Your task to perform on an android device: toggle priority inbox in the gmail app Image 0: 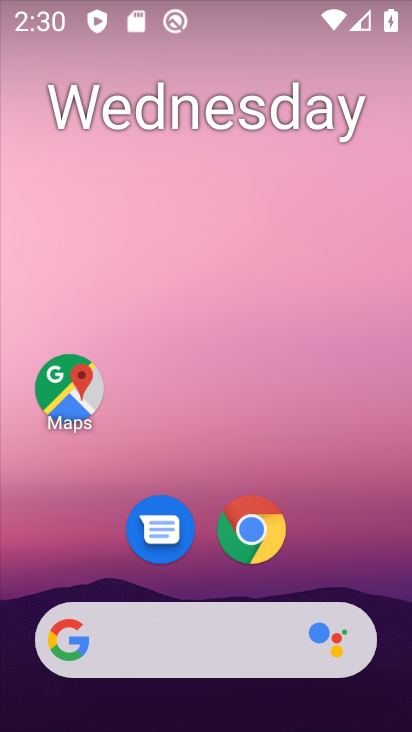
Step 0: drag from (222, 538) to (155, 62)
Your task to perform on an android device: toggle priority inbox in the gmail app Image 1: 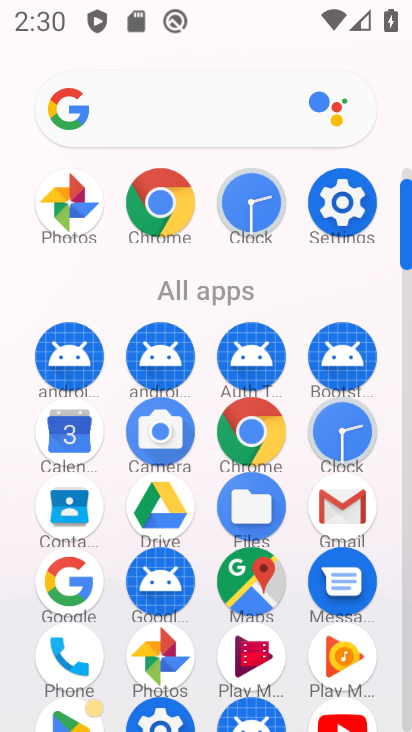
Step 1: click (358, 498)
Your task to perform on an android device: toggle priority inbox in the gmail app Image 2: 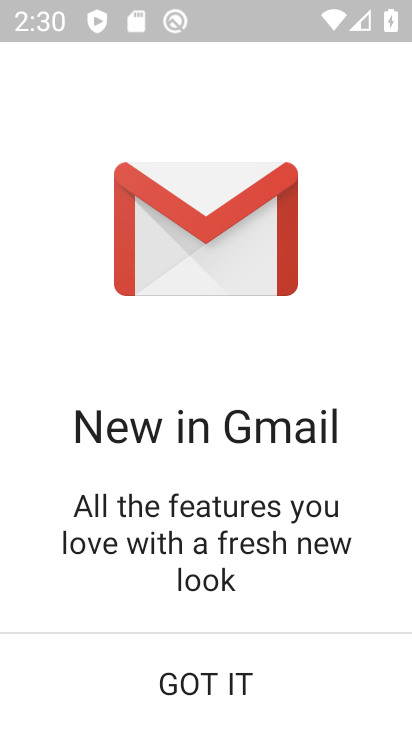
Step 2: click (189, 700)
Your task to perform on an android device: toggle priority inbox in the gmail app Image 3: 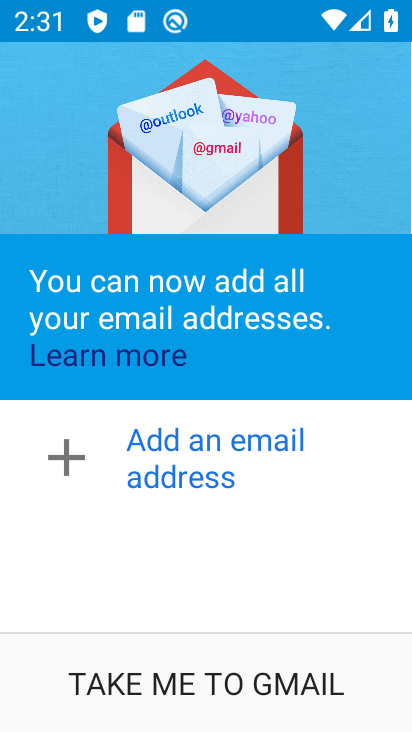
Step 3: click (224, 685)
Your task to perform on an android device: toggle priority inbox in the gmail app Image 4: 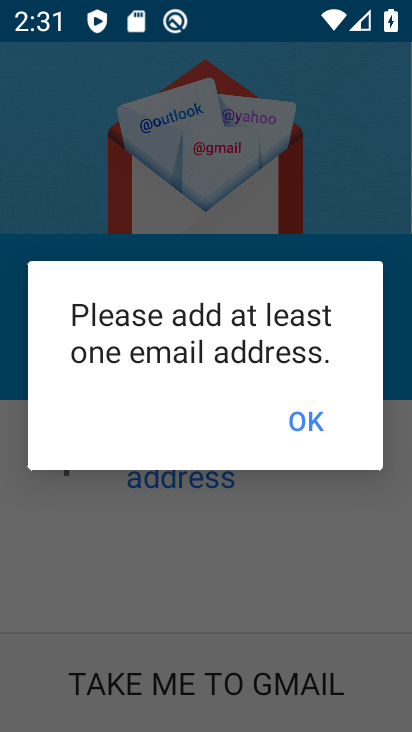
Step 4: click (310, 416)
Your task to perform on an android device: toggle priority inbox in the gmail app Image 5: 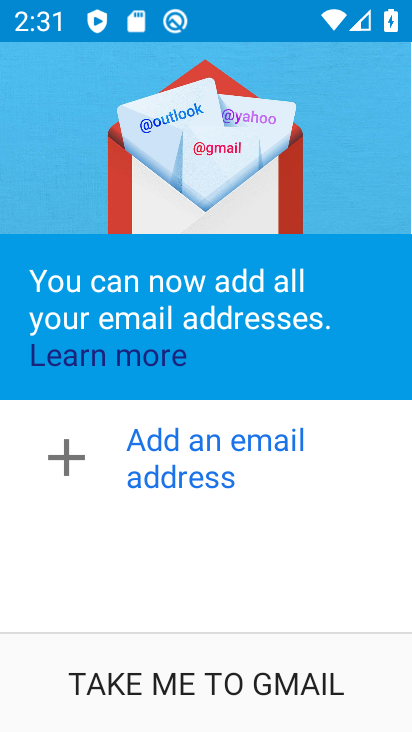
Step 5: click (167, 661)
Your task to perform on an android device: toggle priority inbox in the gmail app Image 6: 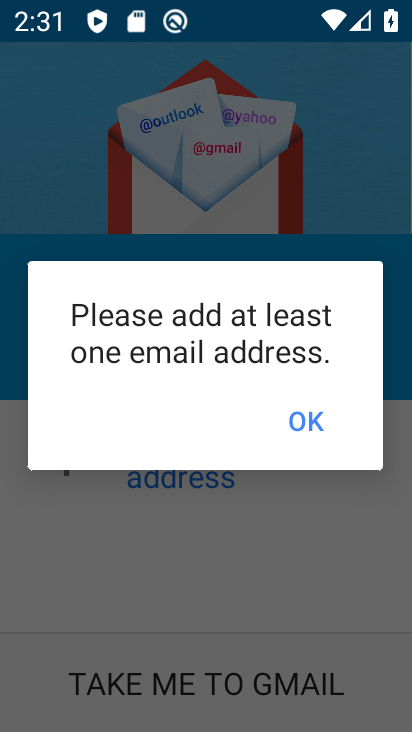
Step 6: click (297, 407)
Your task to perform on an android device: toggle priority inbox in the gmail app Image 7: 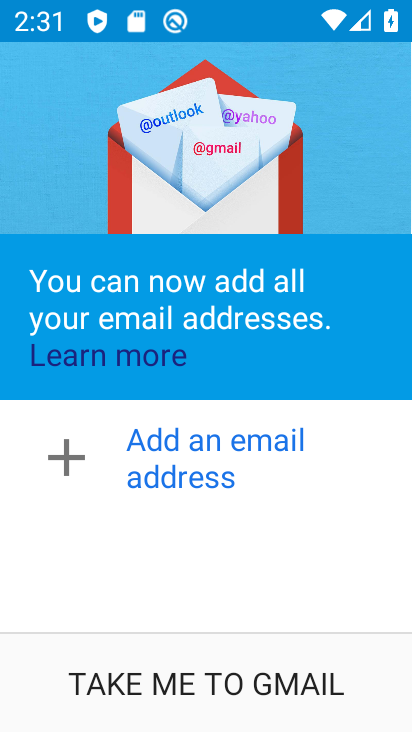
Step 7: click (198, 469)
Your task to perform on an android device: toggle priority inbox in the gmail app Image 8: 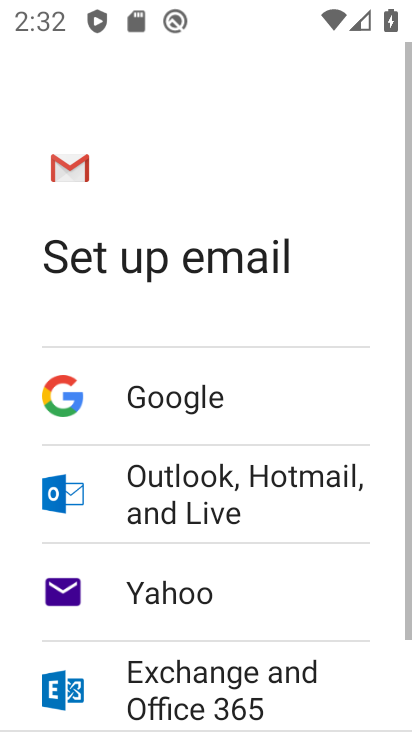
Step 8: task complete